Your task to perform on an android device: turn on sleep mode Image 0: 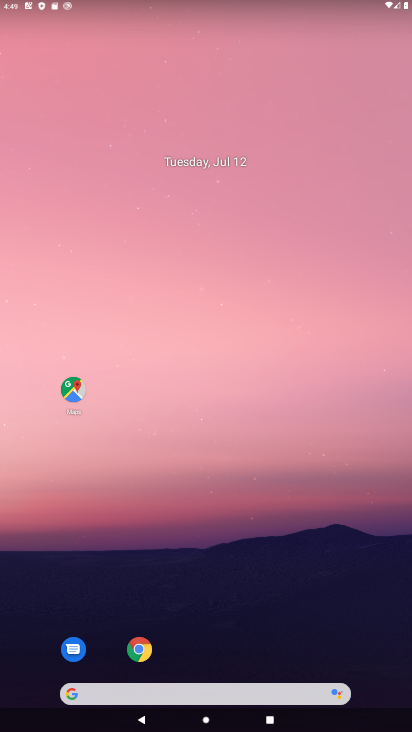
Step 0: drag from (199, 693) to (280, 224)
Your task to perform on an android device: turn on sleep mode Image 1: 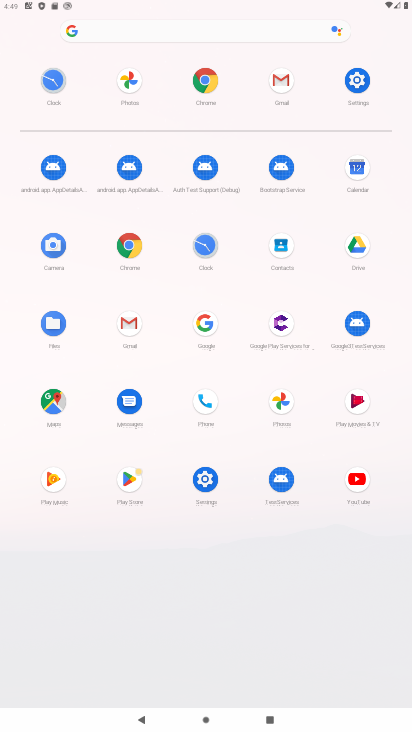
Step 1: click (206, 478)
Your task to perform on an android device: turn on sleep mode Image 2: 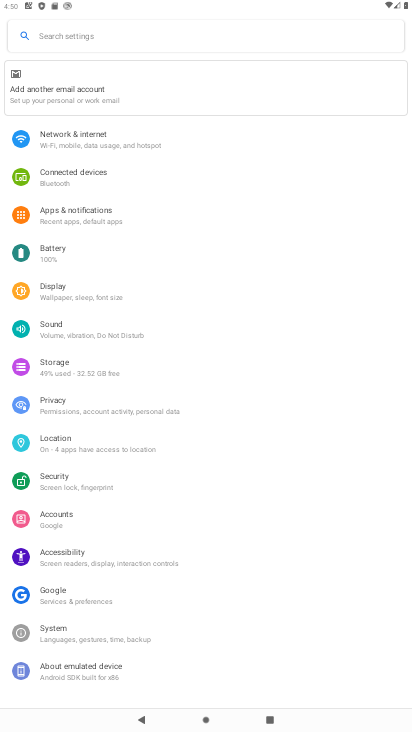
Step 2: click (100, 295)
Your task to perform on an android device: turn on sleep mode Image 3: 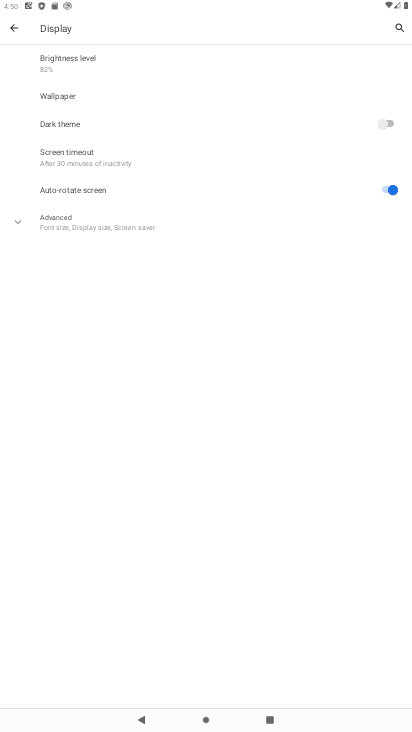
Step 3: click (46, 222)
Your task to perform on an android device: turn on sleep mode Image 4: 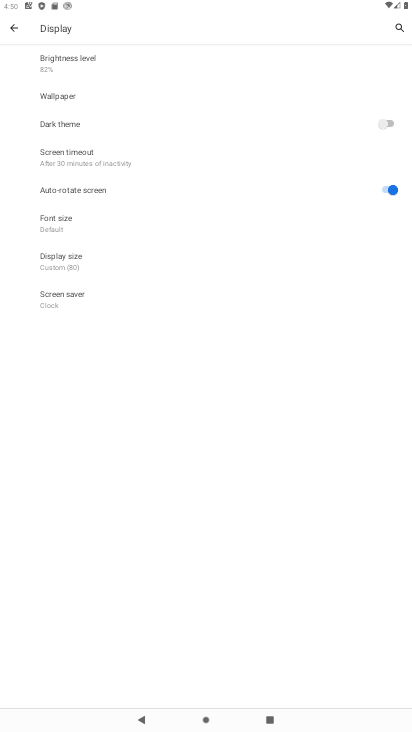
Step 4: click (86, 304)
Your task to perform on an android device: turn on sleep mode Image 5: 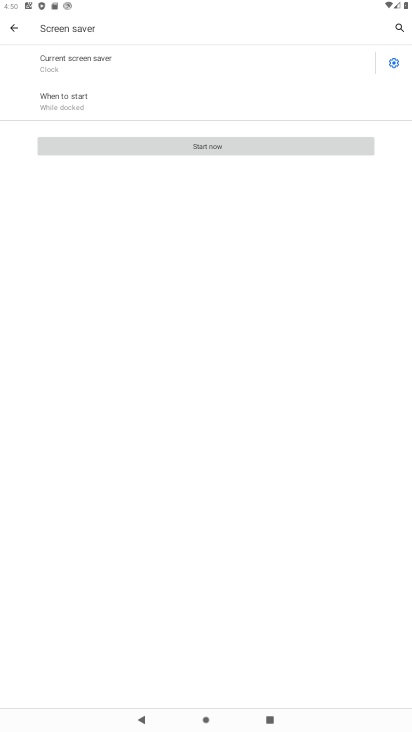
Step 5: task complete